Your task to perform on an android device: Go to Google maps Image 0: 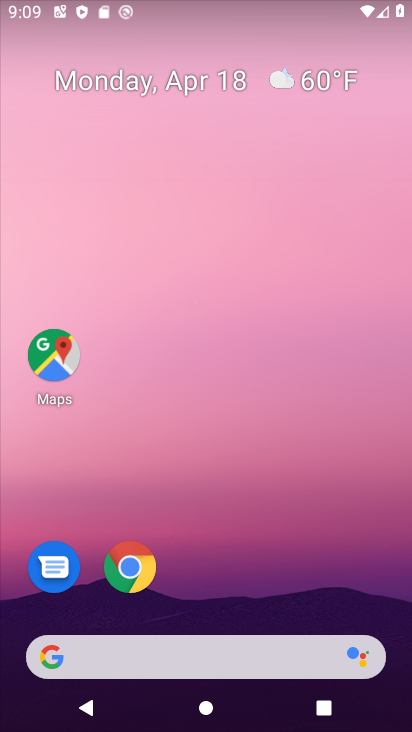
Step 0: click (52, 365)
Your task to perform on an android device: Go to Google maps Image 1: 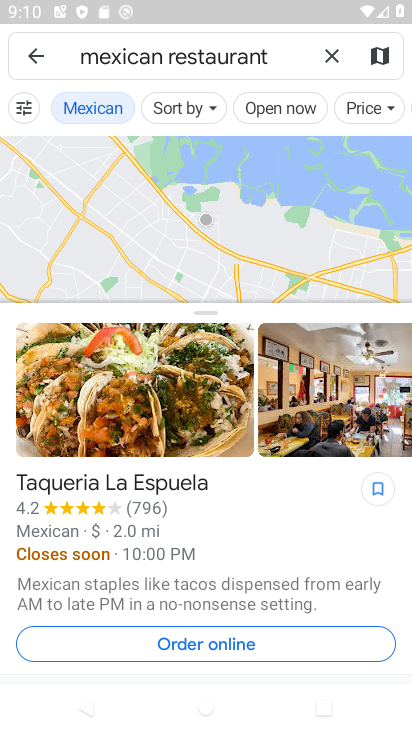
Step 1: task complete